Your task to perform on an android device: open the mobile data screen to see how much data has been used Image 0: 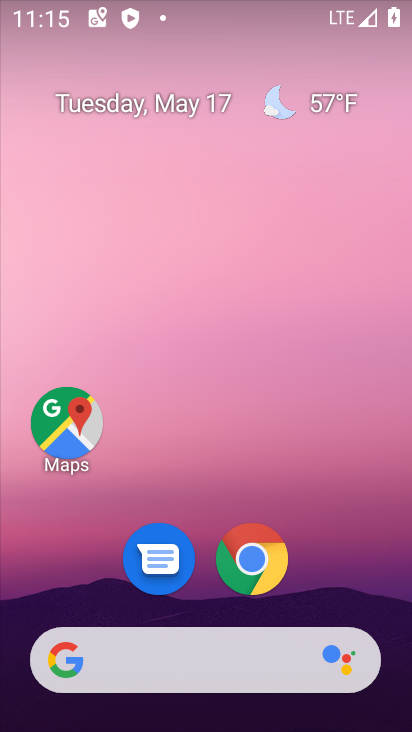
Step 0: drag from (318, 4) to (379, 642)
Your task to perform on an android device: open the mobile data screen to see how much data has been used Image 1: 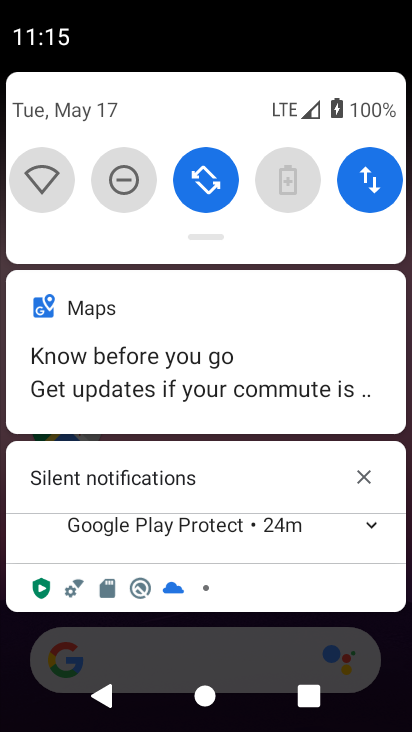
Step 1: click (376, 176)
Your task to perform on an android device: open the mobile data screen to see how much data has been used Image 2: 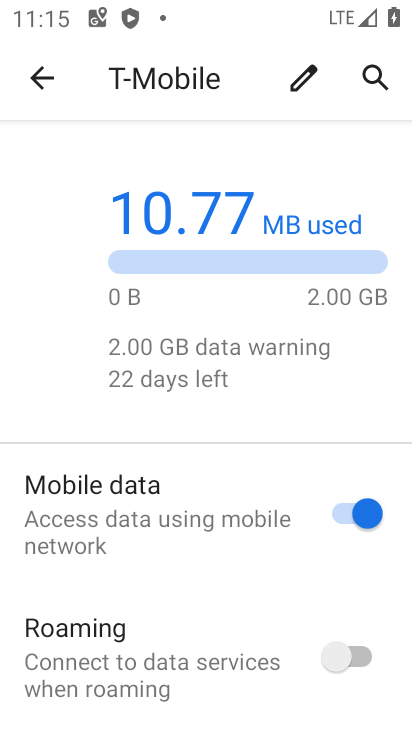
Step 2: task complete